Your task to perform on an android device: open a bookmark in the chrome app Image 0: 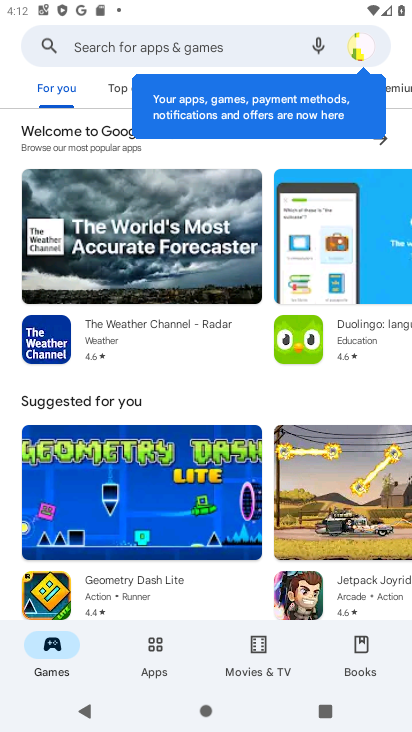
Step 0: press home button
Your task to perform on an android device: open a bookmark in the chrome app Image 1: 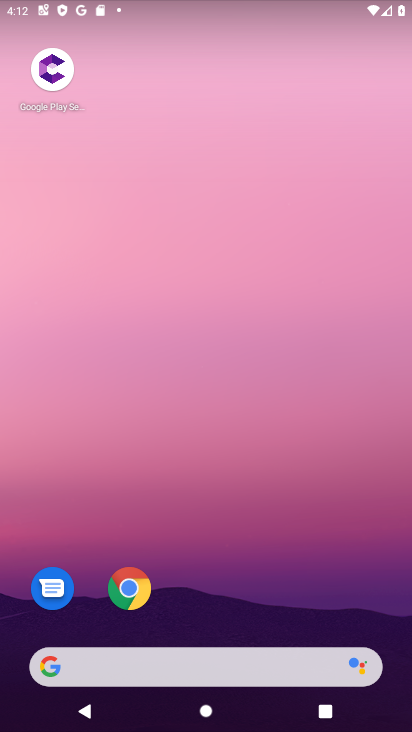
Step 1: click (146, 588)
Your task to perform on an android device: open a bookmark in the chrome app Image 2: 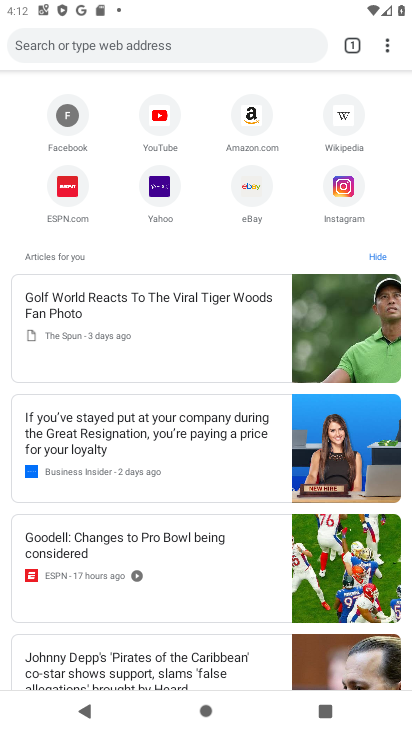
Step 2: click (382, 56)
Your task to perform on an android device: open a bookmark in the chrome app Image 3: 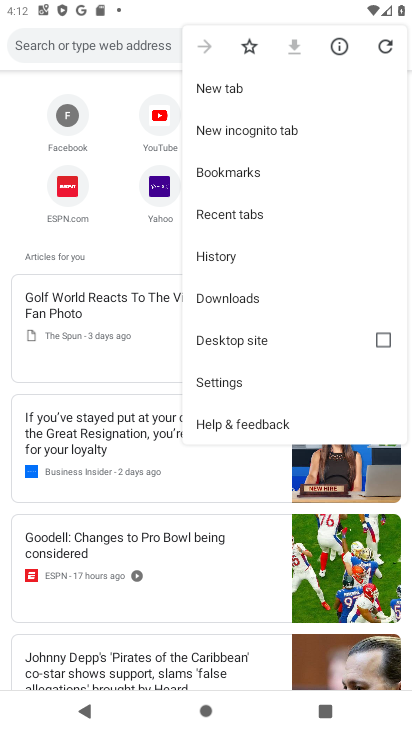
Step 3: click (325, 176)
Your task to perform on an android device: open a bookmark in the chrome app Image 4: 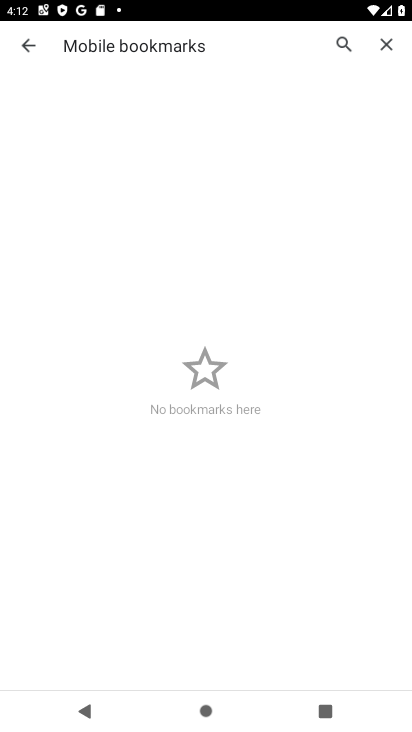
Step 4: task complete